Your task to perform on an android device: turn off airplane mode Image 0: 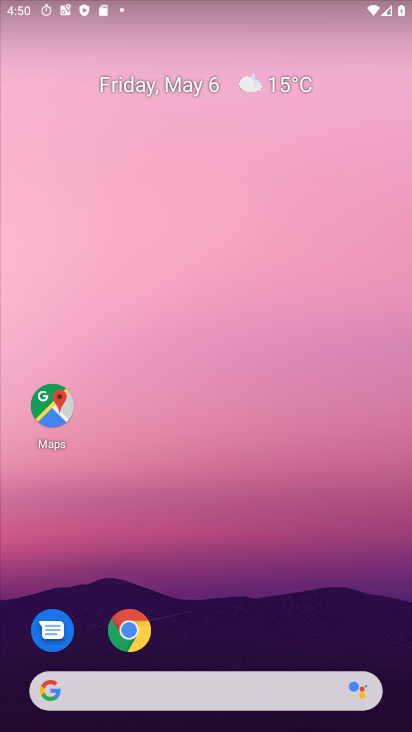
Step 0: drag from (342, 0) to (251, 425)
Your task to perform on an android device: turn off airplane mode Image 1: 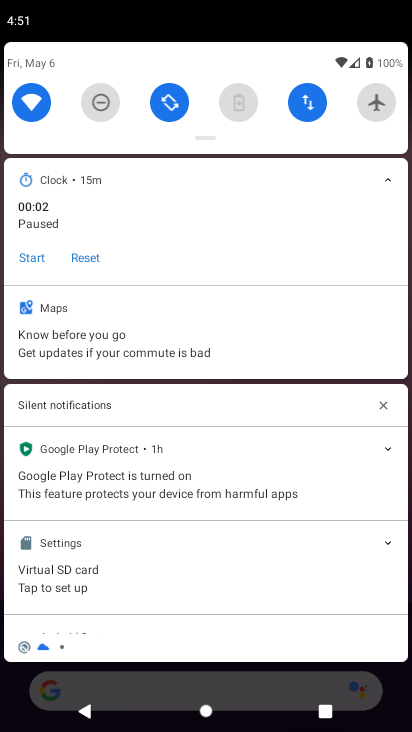
Step 1: task complete